Your task to perform on an android device: Open Chrome and go to the settings page Image 0: 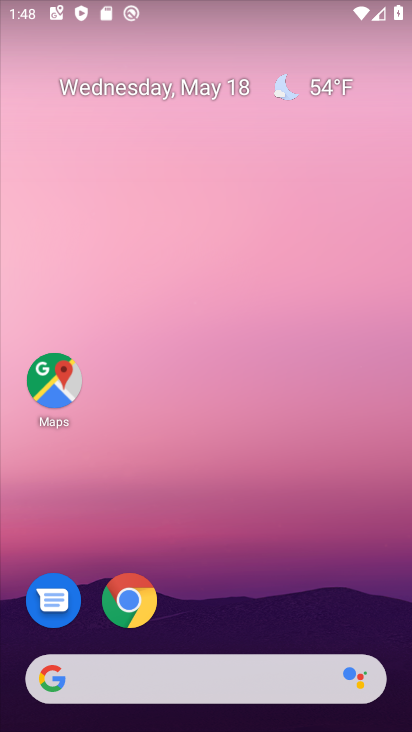
Step 0: click (135, 605)
Your task to perform on an android device: Open Chrome and go to the settings page Image 1: 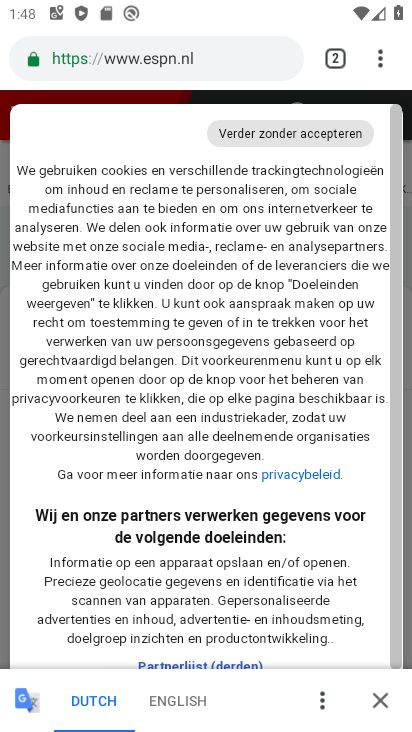
Step 1: click (374, 46)
Your task to perform on an android device: Open Chrome and go to the settings page Image 2: 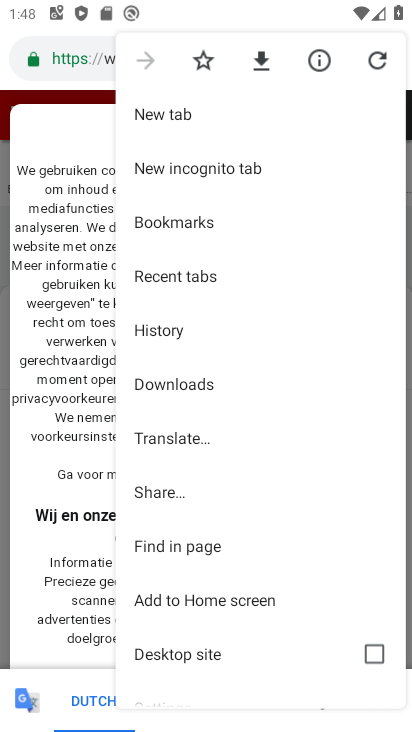
Step 2: drag from (166, 619) to (187, 261)
Your task to perform on an android device: Open Chrome and go to the settings page Image 3: 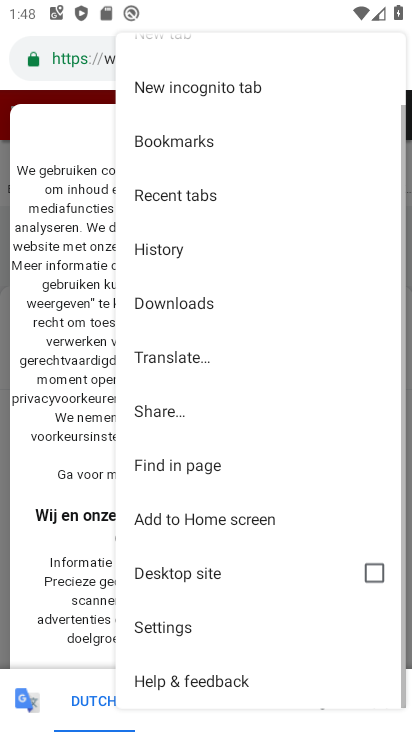
Step 3: click (155, 622)
Your task to perform on an android device: Open Chrome and go to the settings page Image 4: 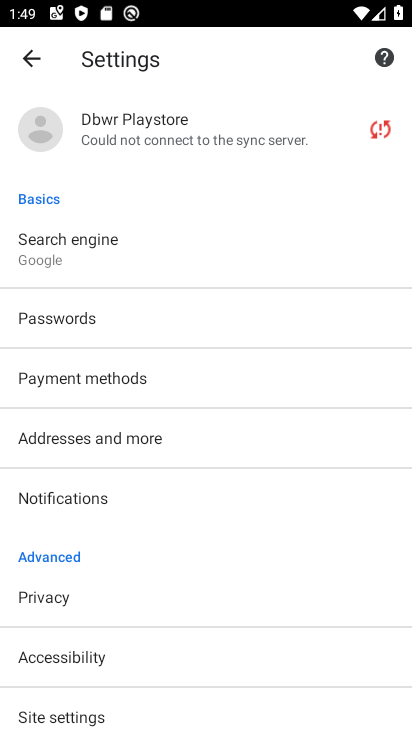
Step 4: task complete